Your task to perform on an android device: What's the weather going to be this weekend? Image 0: 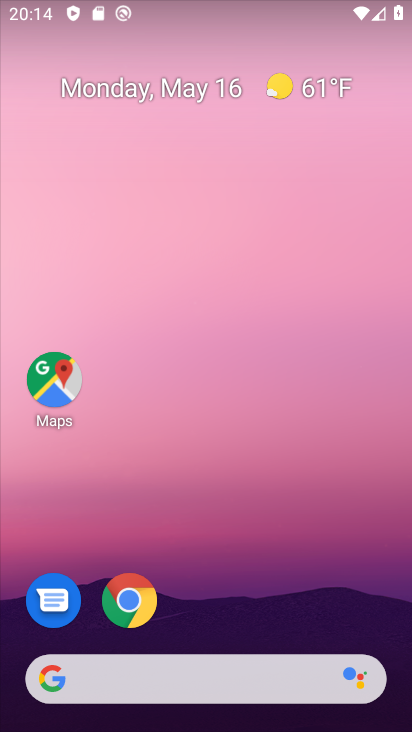
Step 0: click (319, 92)
Your task to perform on an android device: What's the weather going to be this weekend? Image 1: 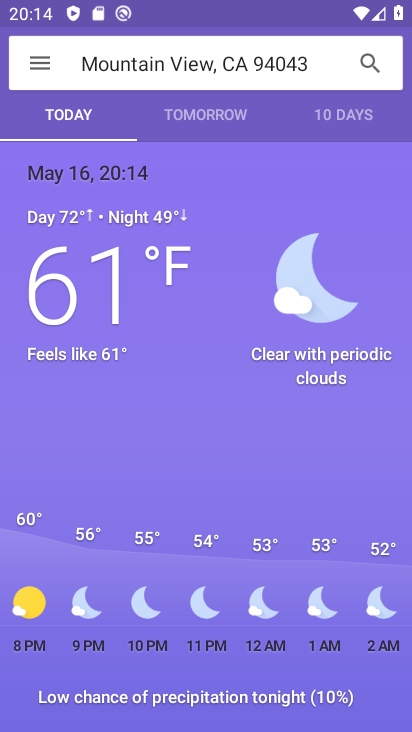
Step 1: click (333, 118)
Your task to perform on an android device: What's the weather going to be this weekend? Image 2: 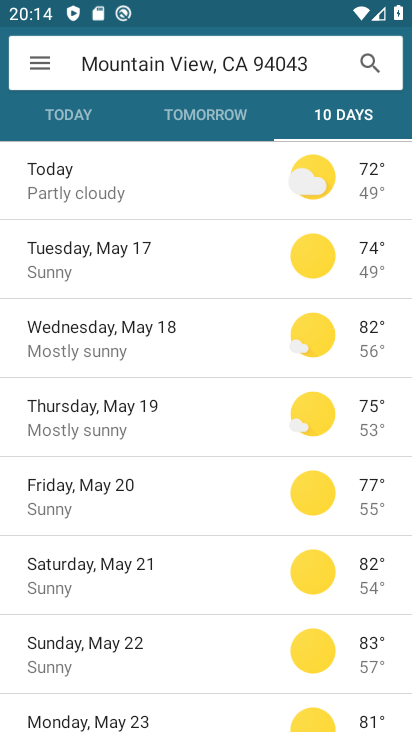
Step 2: task complete